Your task to perform on an android device: Go to sound settings Image 0: 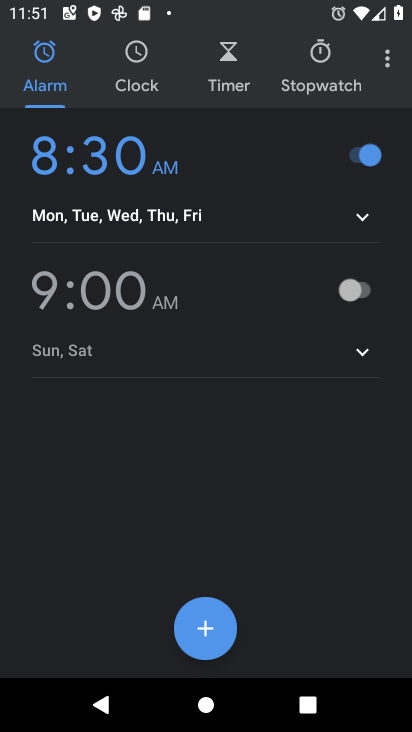
Step 0: press home button
Your task to perform on an android device: Go to sound settings Image 1: 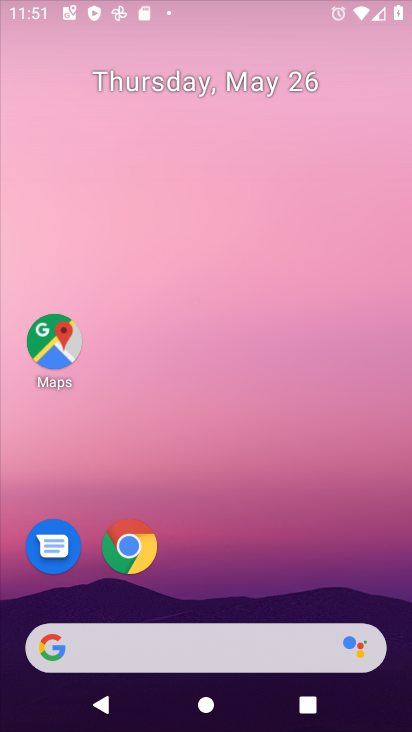
Step 1: drag from (245, 508) to (237, 94)
Your task to perform on an android device: Go to sound settings Image 2: 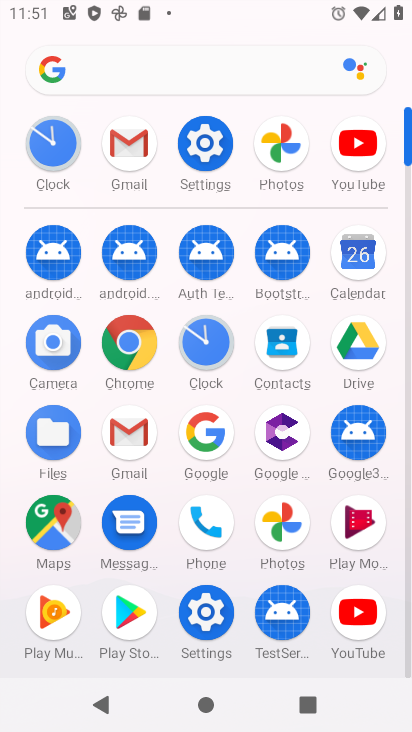
Step 2: click (205, 131)
Your task to perform on an android device: Go to sound settings Image 3: 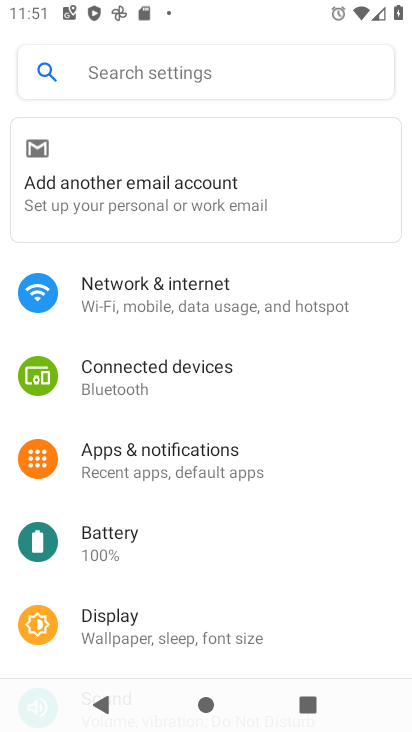
Step 3: drag from (172, 593) to (161, 201)
Your task to perform on an android device: Go to sound settings Image 4: 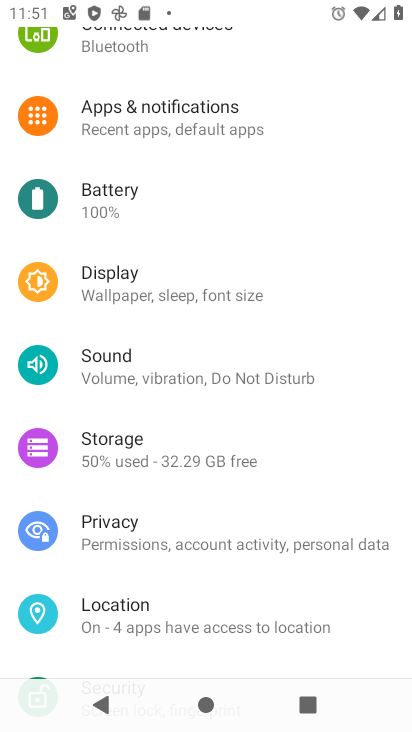
Step 4: click (120, 370)
Your task to perform on an android device: Go to sound settings Image 5: 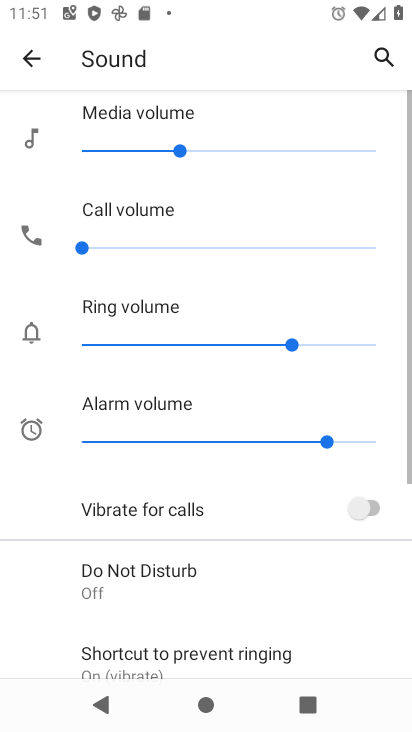
Step 5: task complete